Your task to perform on an android device: Open privacy settings Image 0: 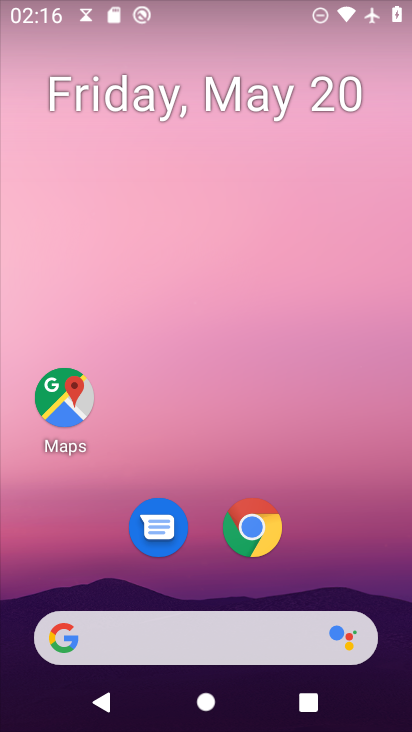
Step 0: press home button
Your task to perform on an android device: Open privacy settings Image 1: 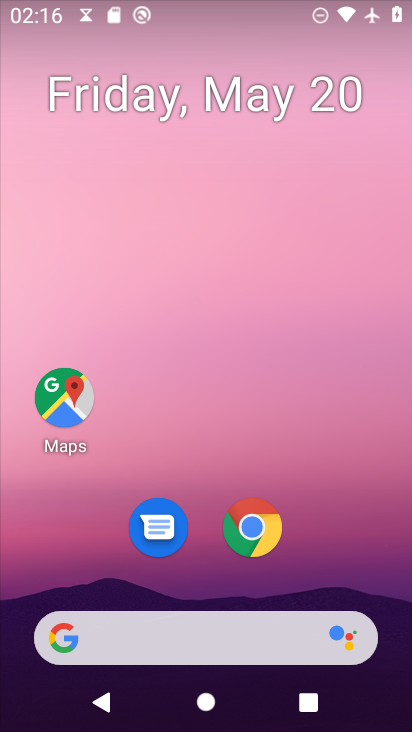
Step 1: drag from (157, 645) to (313, 128)
Your task to perform on an android device: Open privacy settings Image 2: 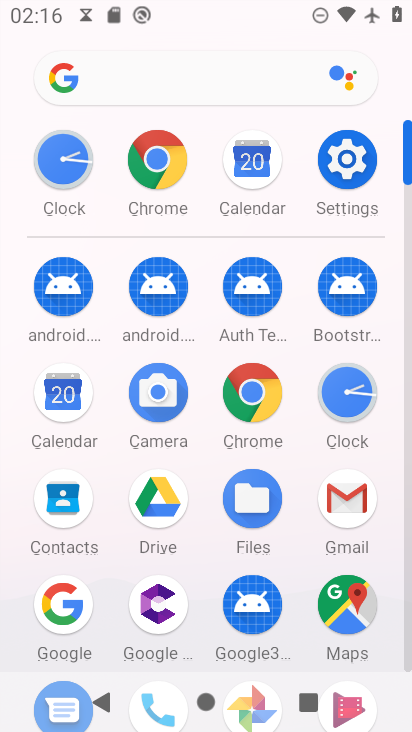
Step 2: click (351, 164)
Your task to perform on an android device: Open privacy settings Image 3: 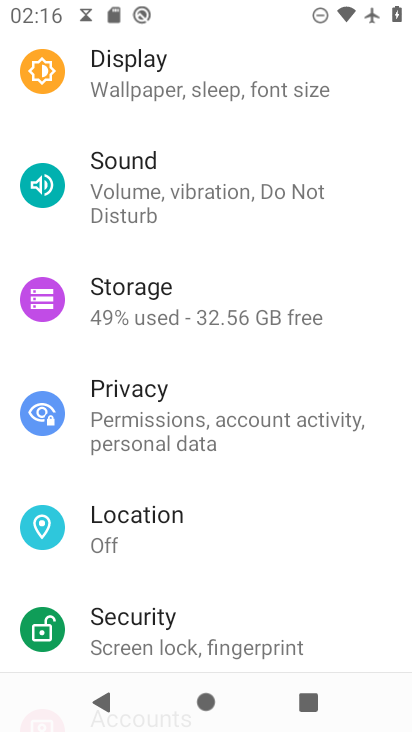
Step 3: click (156, 398)
Your task to perform on an android device: Open privacy settings Image 4: 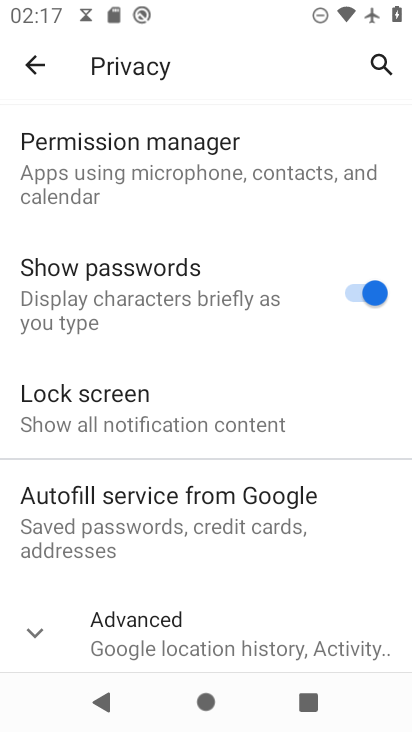
Step 4: task complete